Your task to perform on an android device: open wifi settings Image 0: 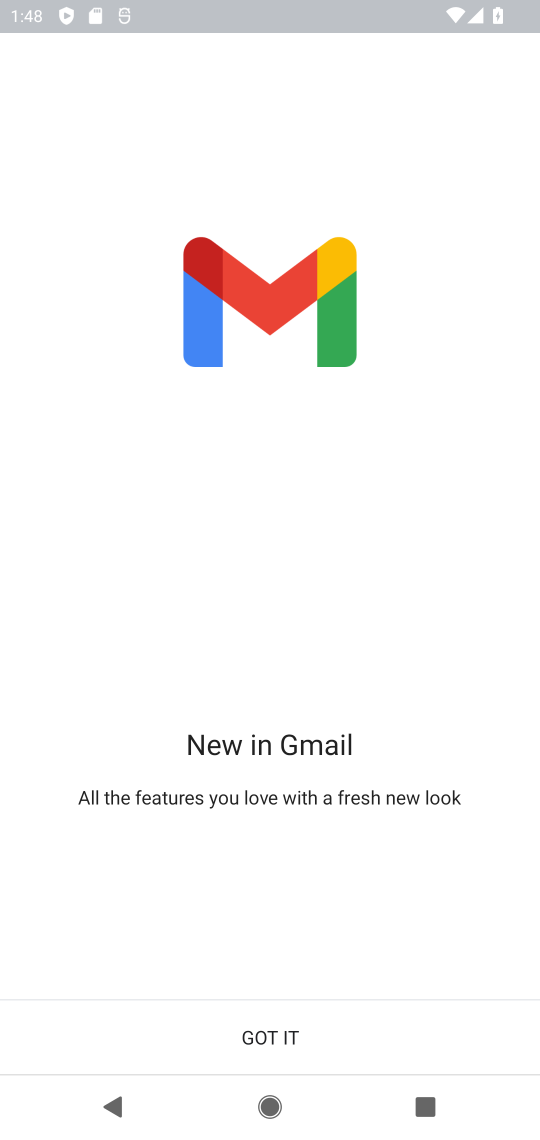
Step 0: press home button
Your task to perform on an android device: open wifi settings Image 1: 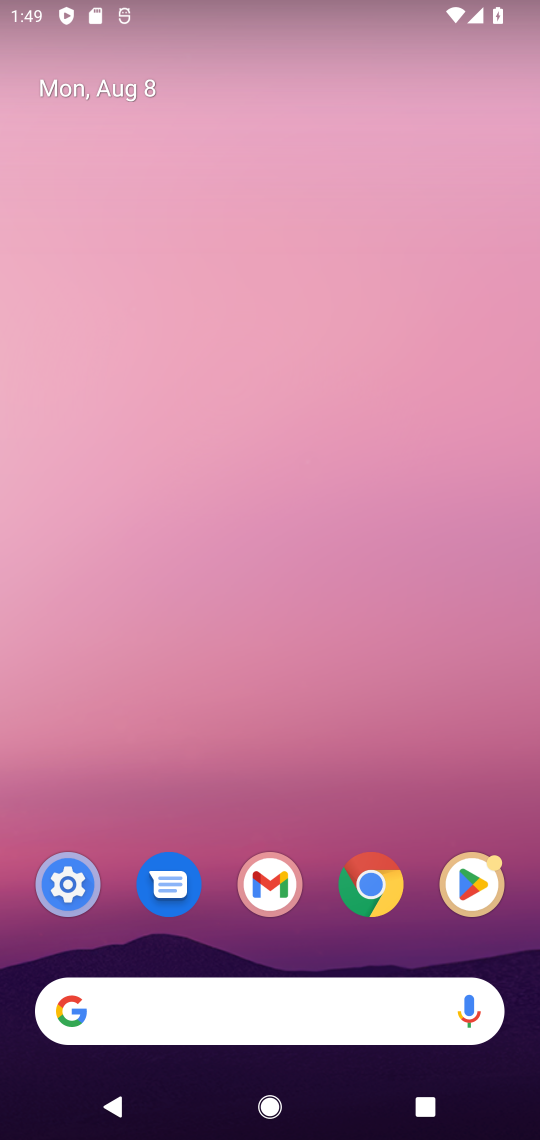
Step 1: click (67, 886)
Your task to perform on an android device: open wifi settings Image 2: 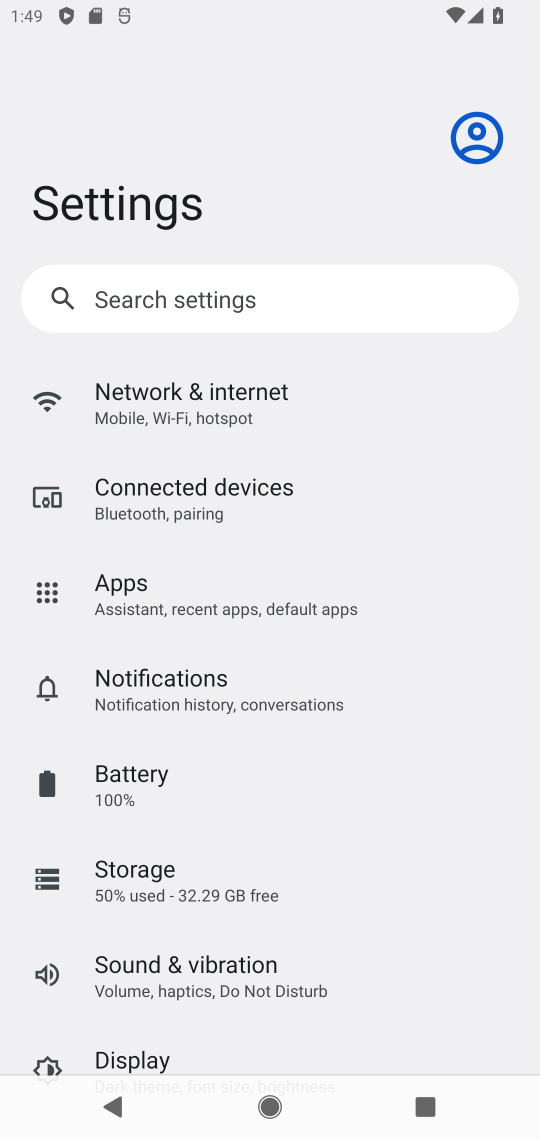
Step 2: click (195, 388)
Your task to perform on an android device: open wifi settings Image 3: 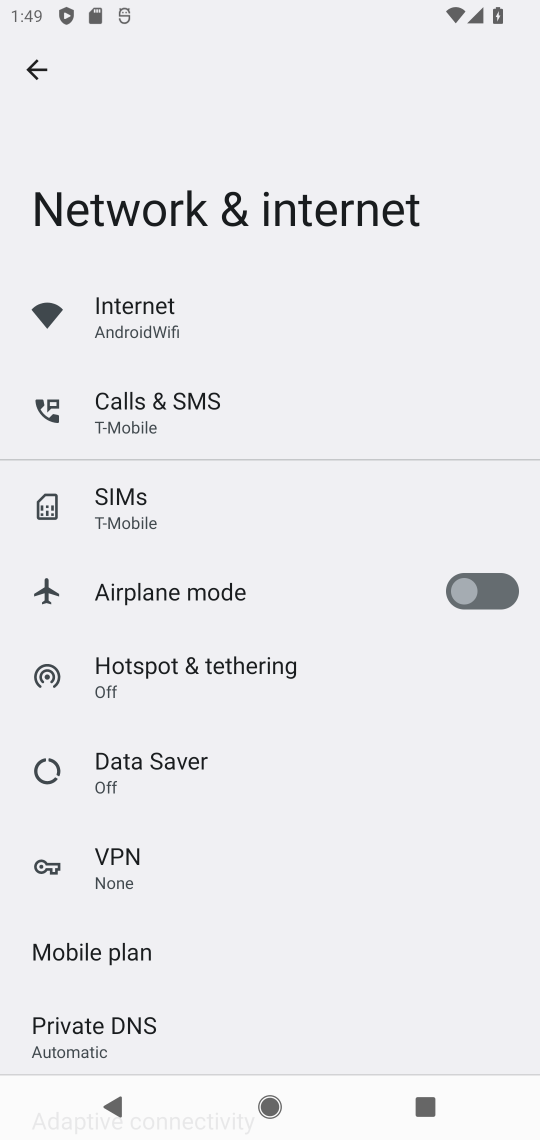
Step 3: click (139, 307)
Your task to perform on an android device: open wifi settings Image 4: 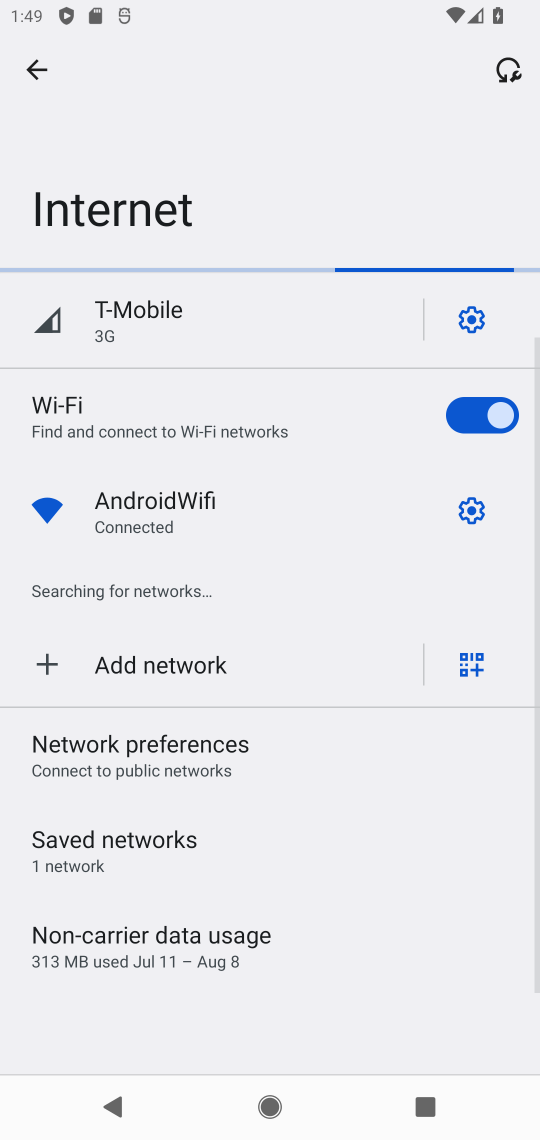
Step 4: task complete